Your task to perform on an android device: Open Google Maps and go to "Timeline" Image 0: 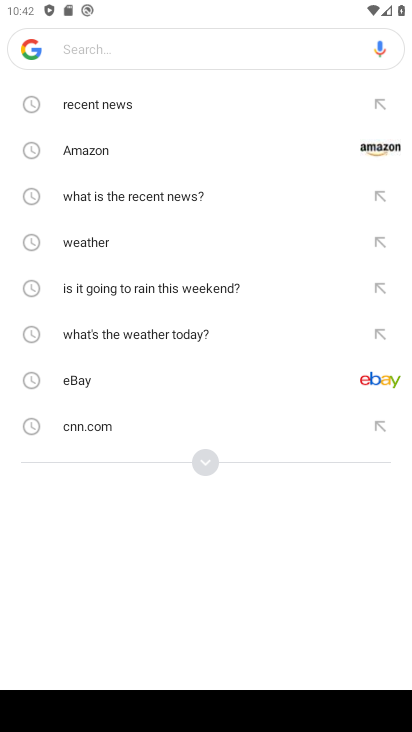
Step 0: press home button
Your task to perform on an android device: Open Google Maps and go to "Timeline" Image 1: 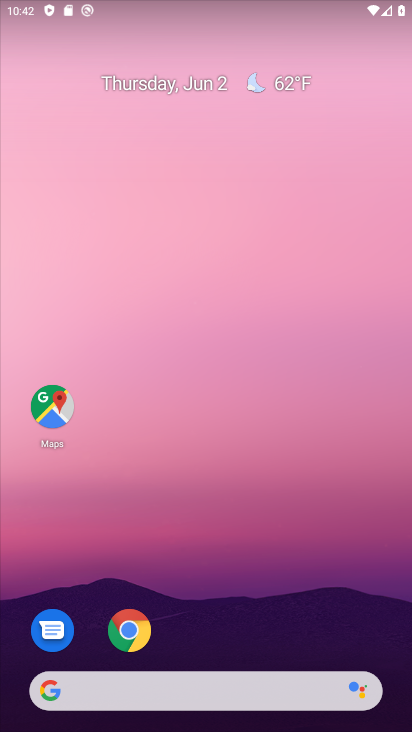
Step 1: drag from (161, 695) to (229, 454)
Your task to perform on an android device: Open Google Maps and go to "Timeline" Image 2: 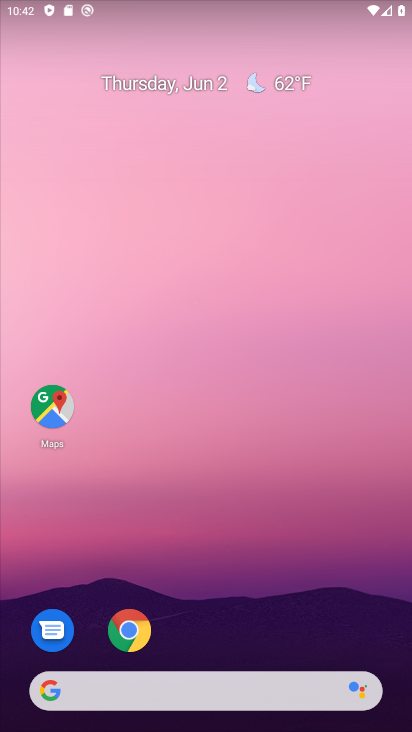
Step 2: click (48, 414)
Your task to perform on an android device: Open Google Maps and go to "Timeline" Image 3: 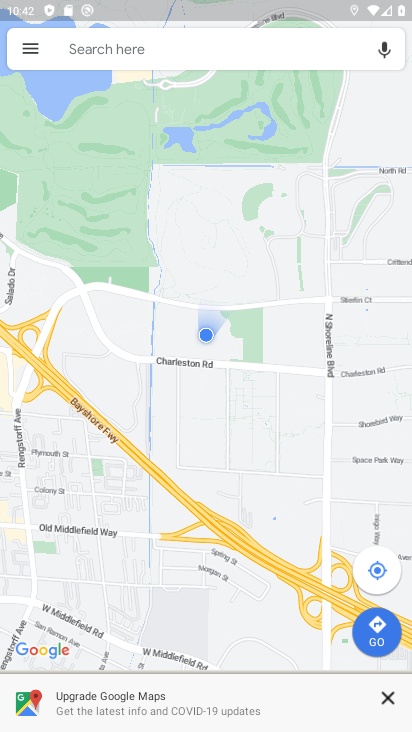
Step 3: click (23, 52)
Your task to perform on an android device: Open Google Maps and go to "Timeline" Image 4: 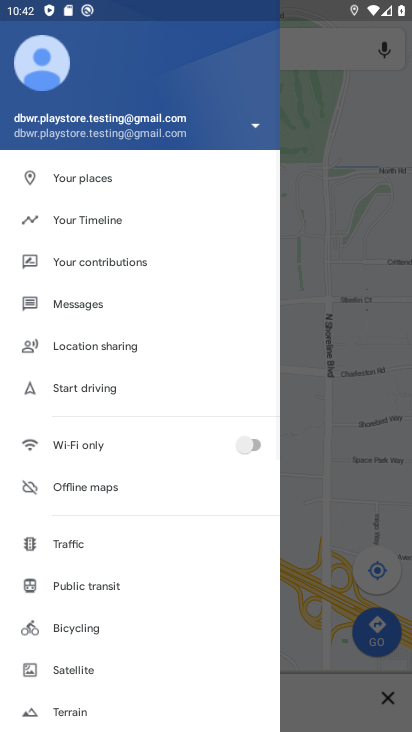
Step 4: click (113, 222)
Your task to perform on an android device: Open Google Maps and go to "Timeline" Image 5: 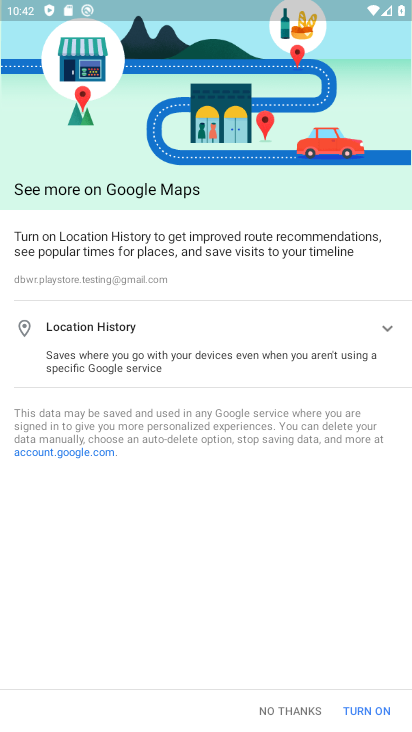
Step 5: click (275, 718)
Your task to perform on an android device: Open Google Maps and go to "Timeline" Image 6: 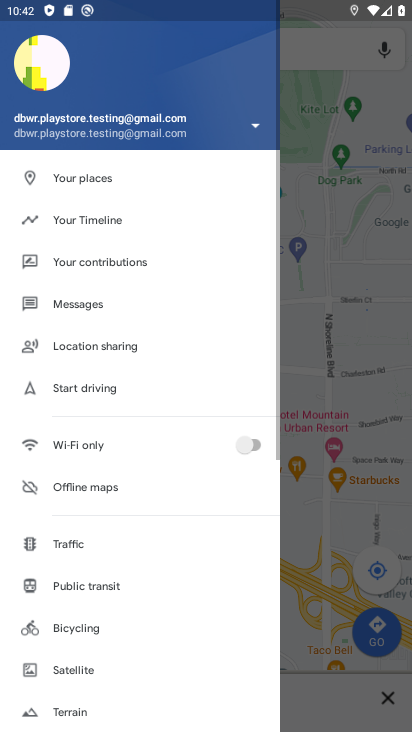
Step 6: click (111, 222)
Your task to perform on an android device: Open Google Maps and go to "Timeline" Image 7: 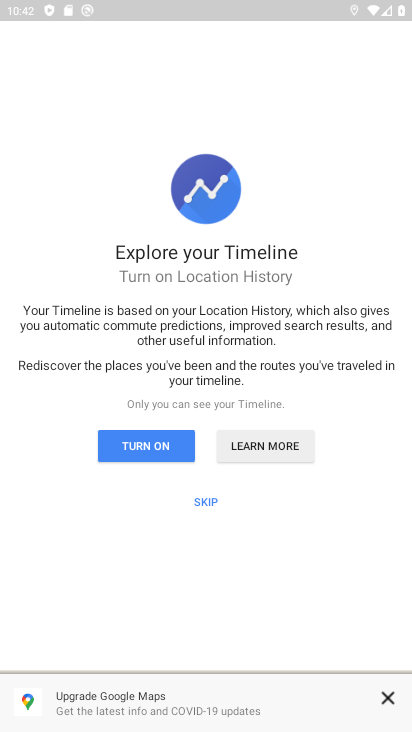
Step 7: click (200, 502)
Your task to perform on an android device: Open Google Maps and go to "Timeline" Image 8: 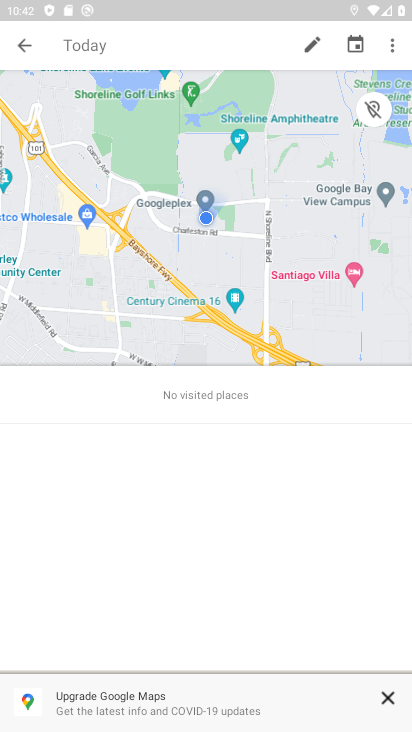
Step 8: task complete